Your task to perform on an android device: Search for the most popular books on Goodreads Image 0: 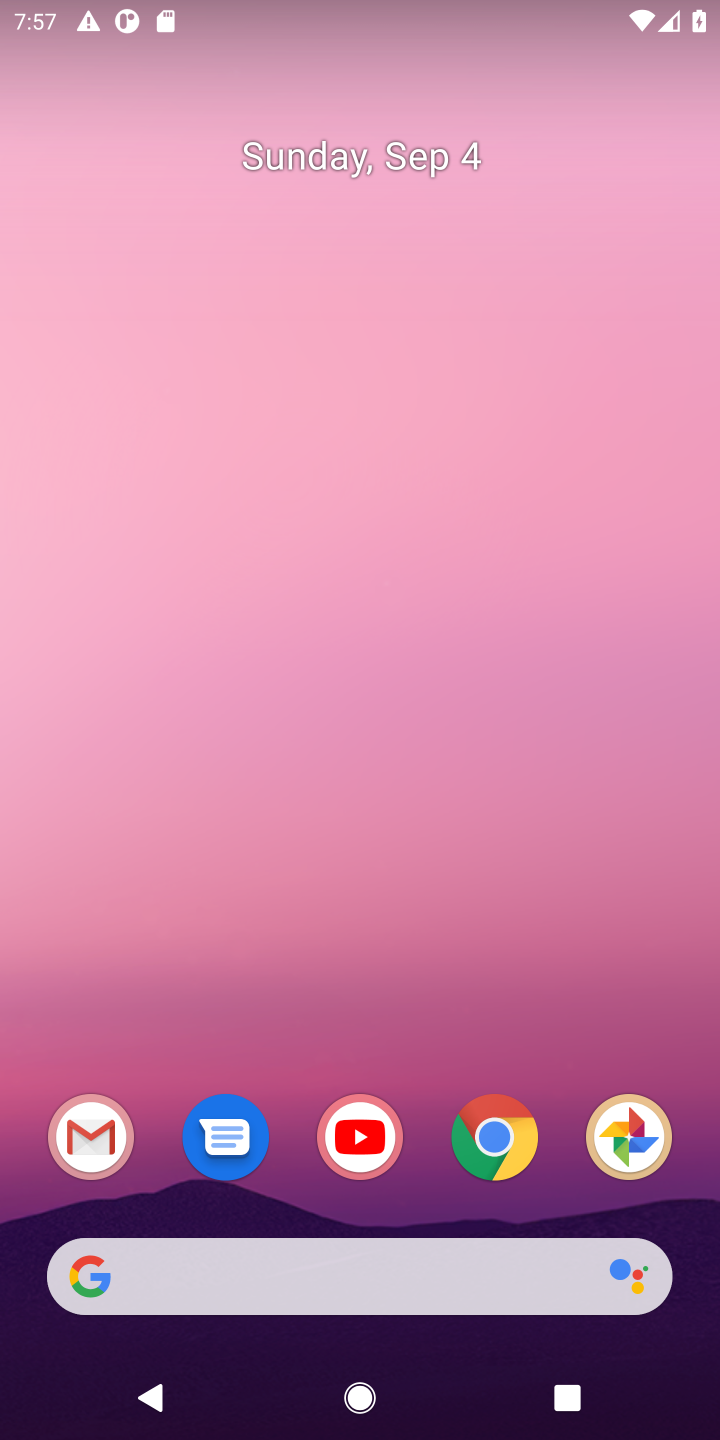
Step 0: click (494, 1132)
Your task to perform on an android device: Search for the most popular books on Goodreads Image 1: 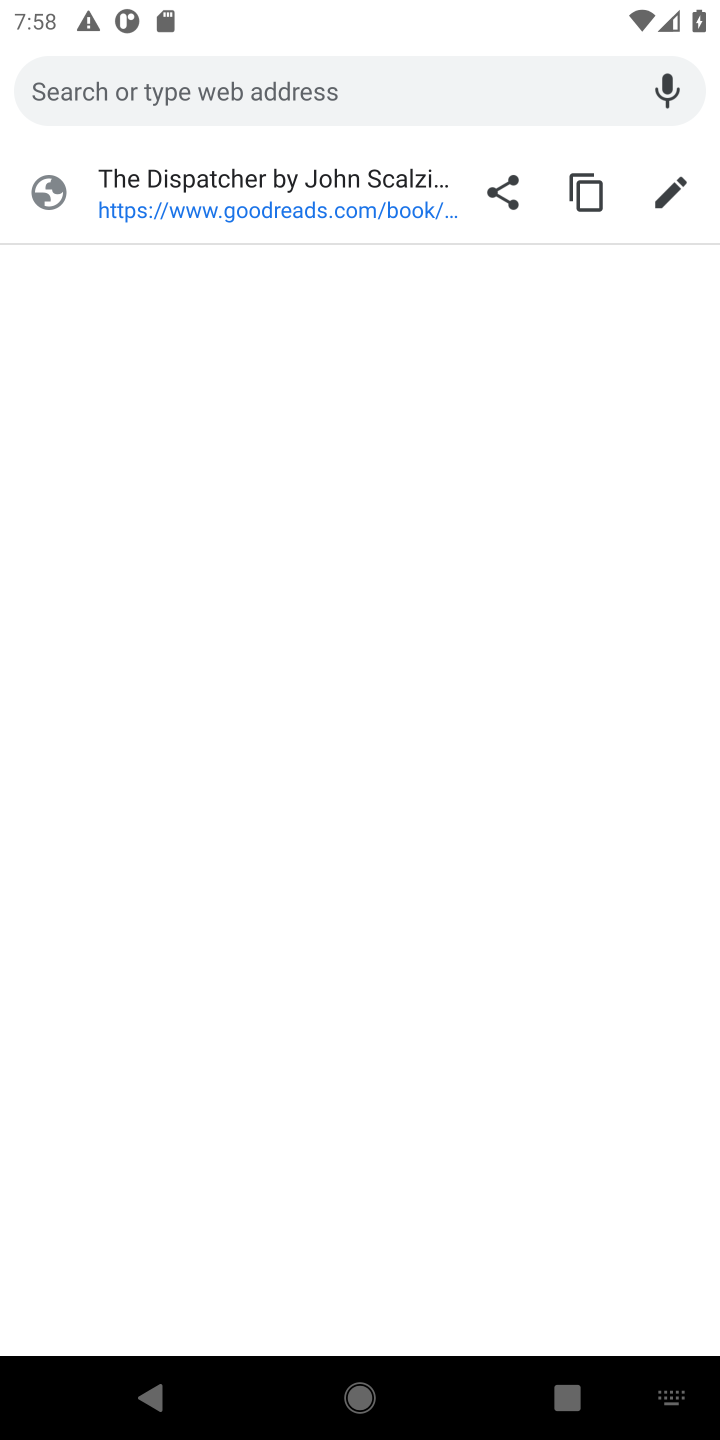
Step 1: type "Goodreads"
Your task to perform on an android device: Search for the most popular books on Goodreads Image 2: 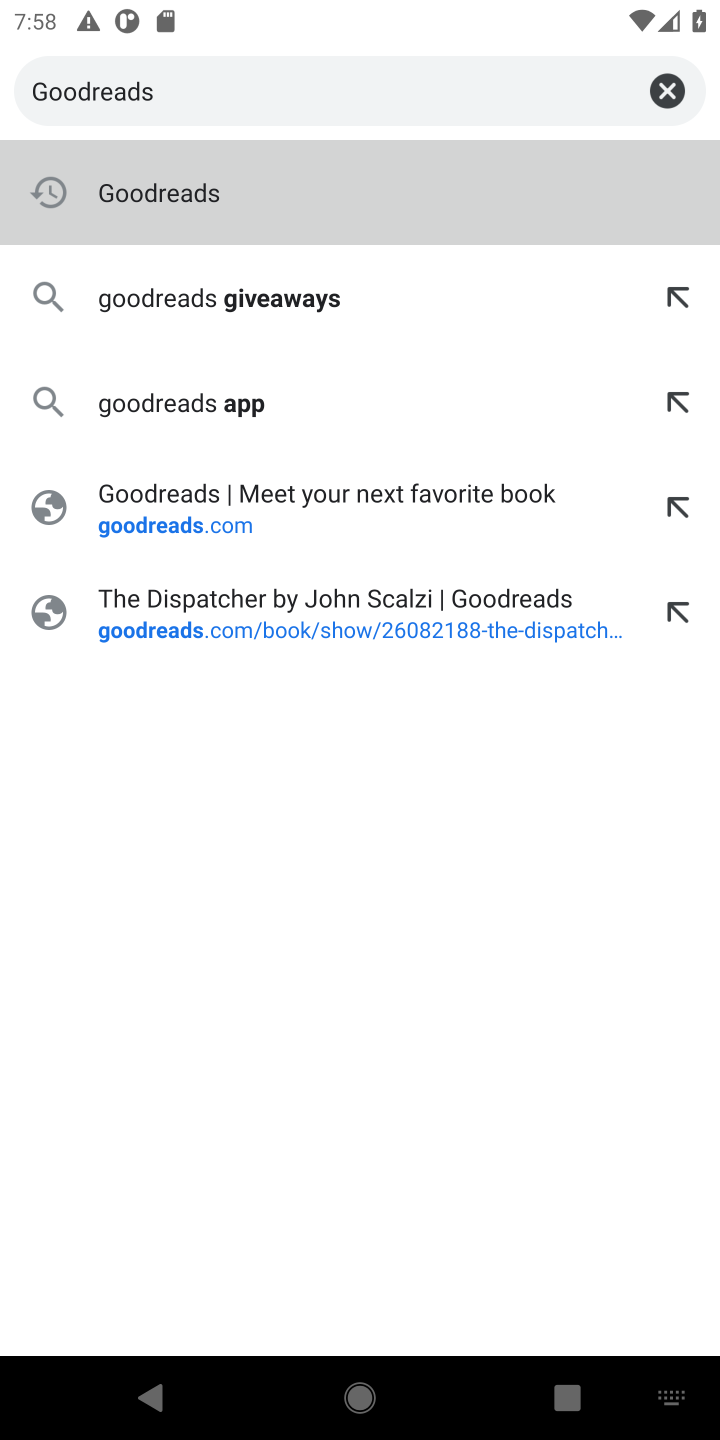
Step 2: click (126, 190)
Your task to perform on an android device: Search for the most popular books on Goodreads Image 3: 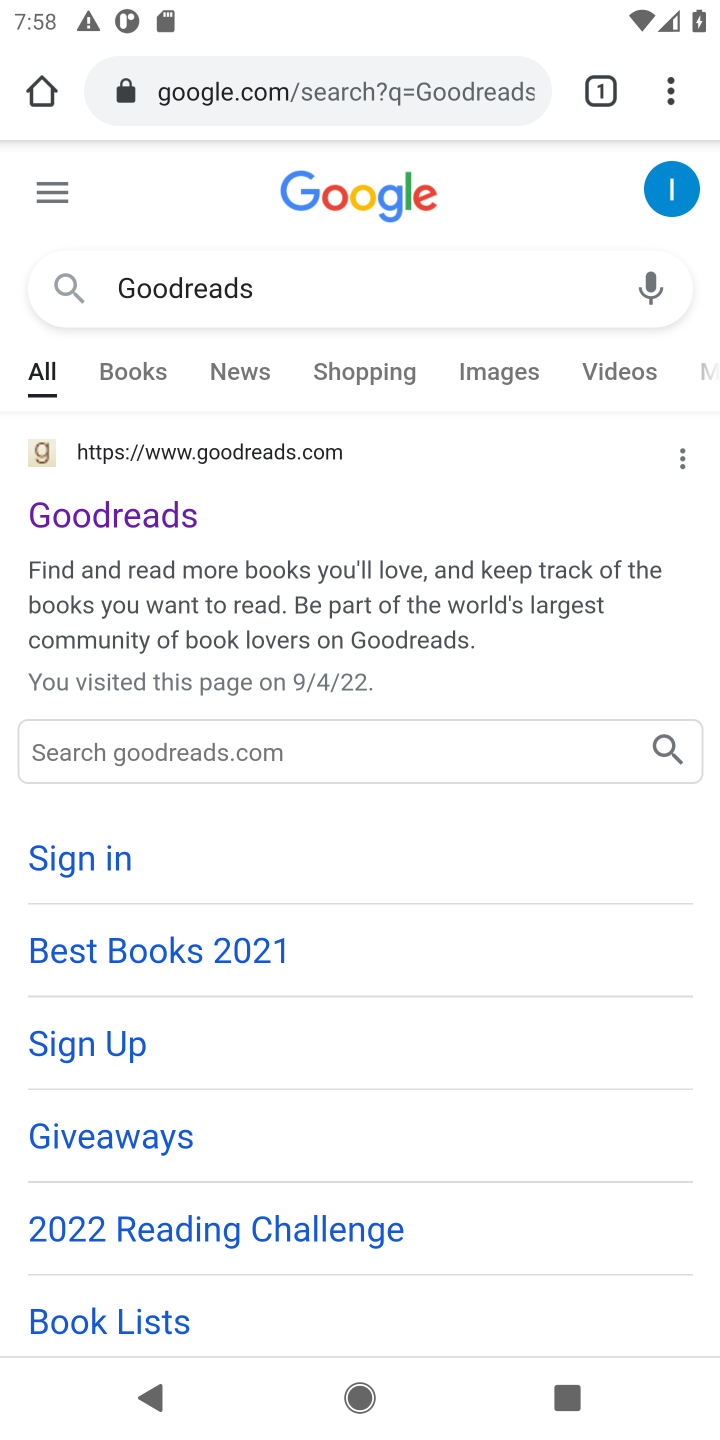
Step 3: click (95, 542)
Your task to perform on an android device: Search for the most popular books on Goodreads Image 4: 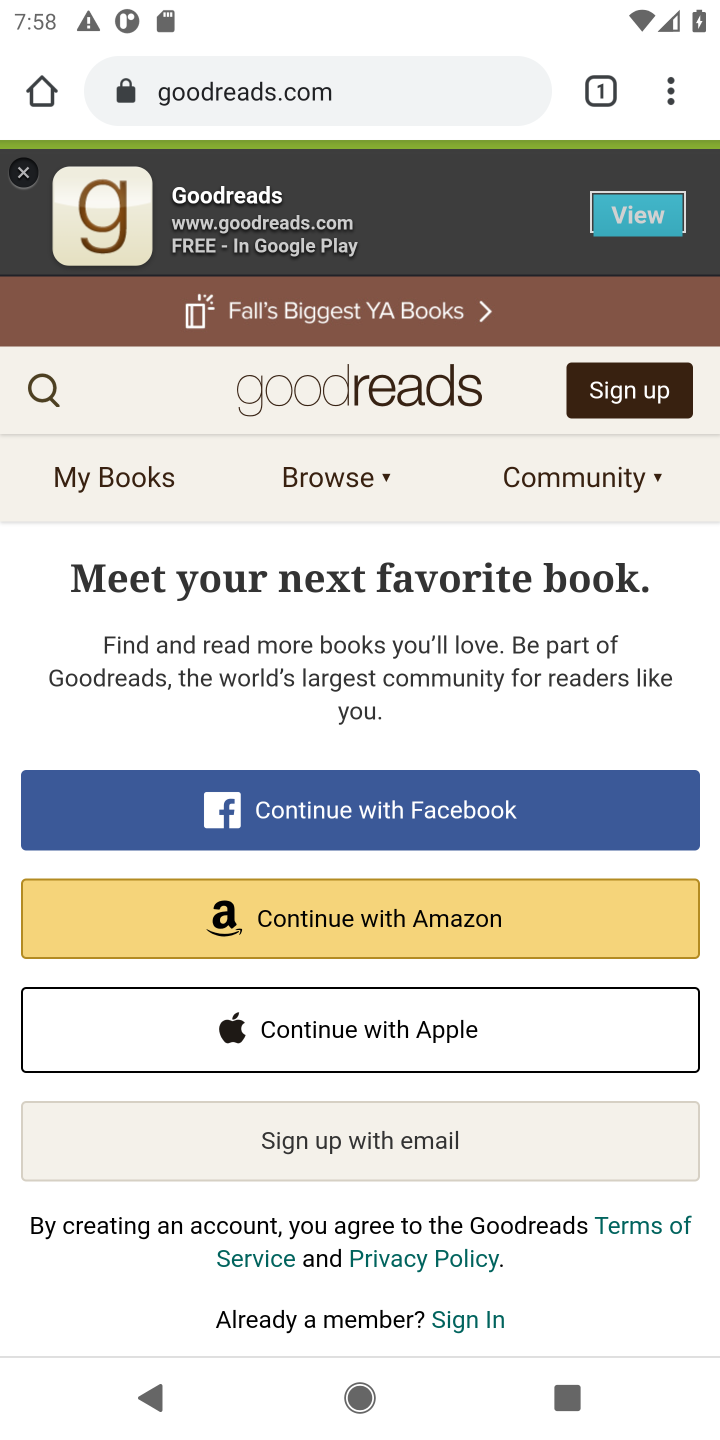
Step 4: click (52, 391)
Your task to perform on an android device: Search for the most popular books on Goodreads Image 5: 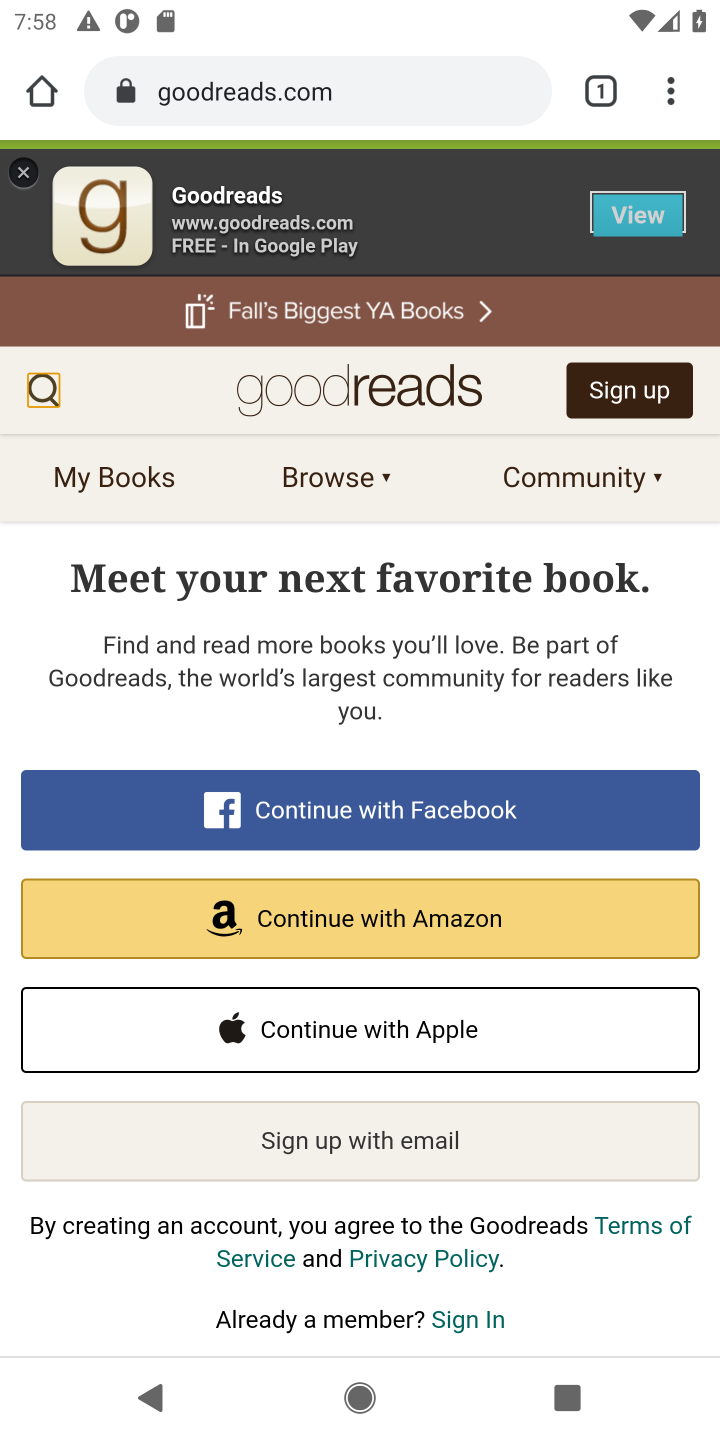
Step 5: click (59, 399)
Your task to perform on an android device: Search for the most popular books on Goodreads Image 6: 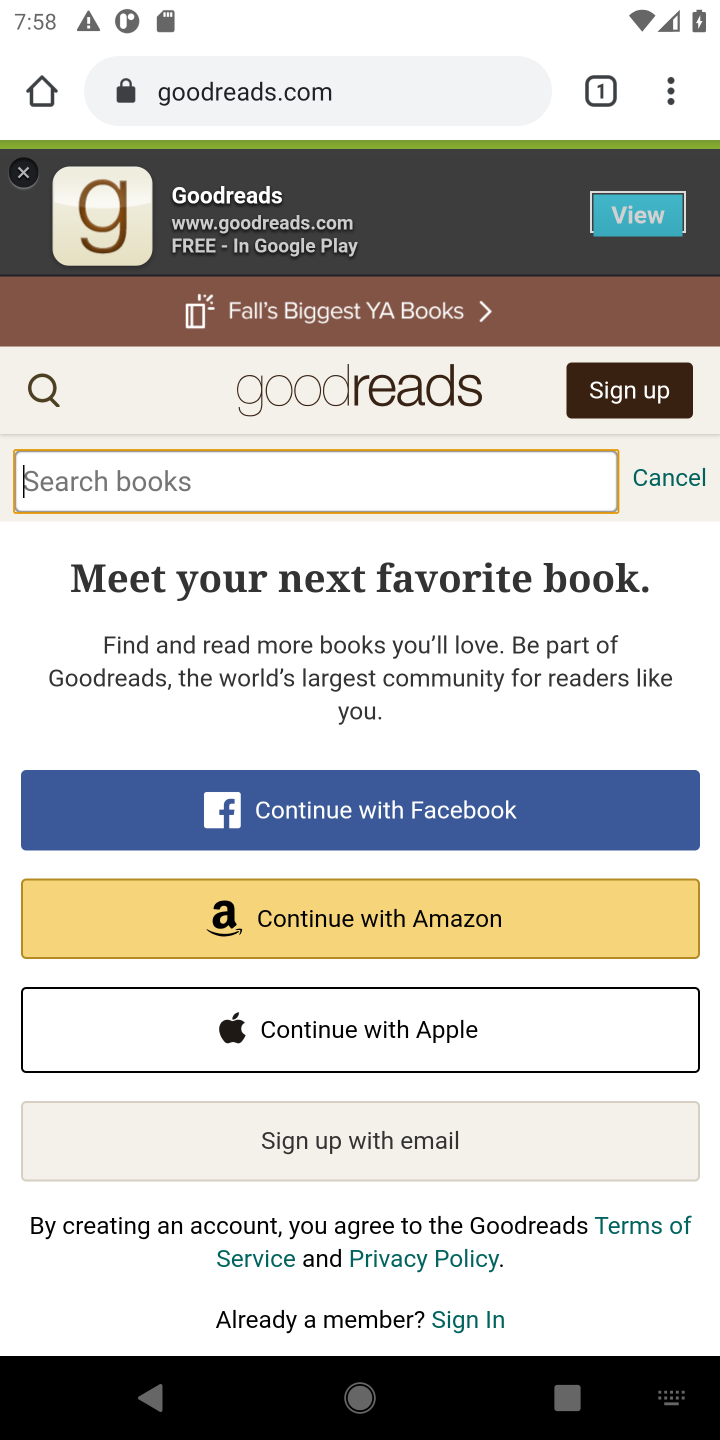
Step 6: click (81, 481)
Your task to perform on an android device: Search for the most popular books on Goodreads Image 7: 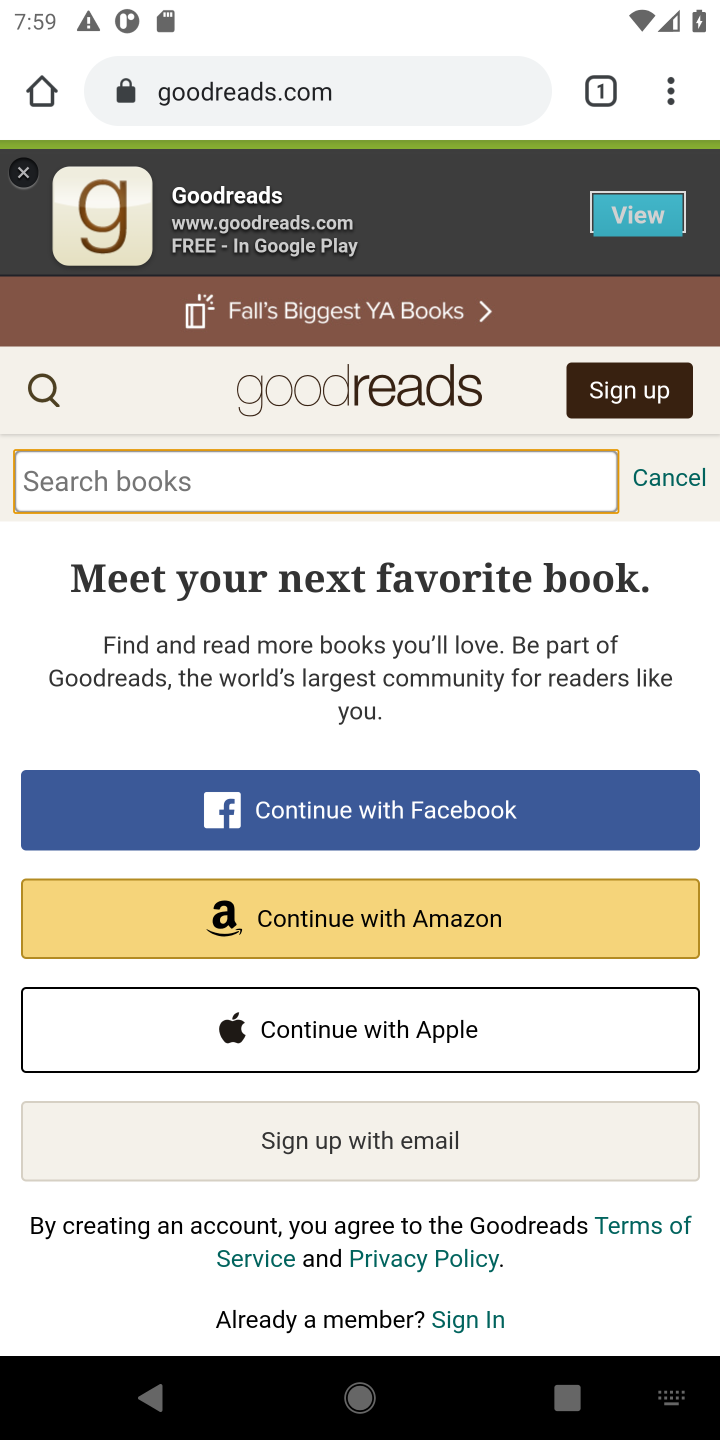
Step 7: type " most popular books"
Your task to perform on an android device: Search for the most popular books on Goodreads Image 8: 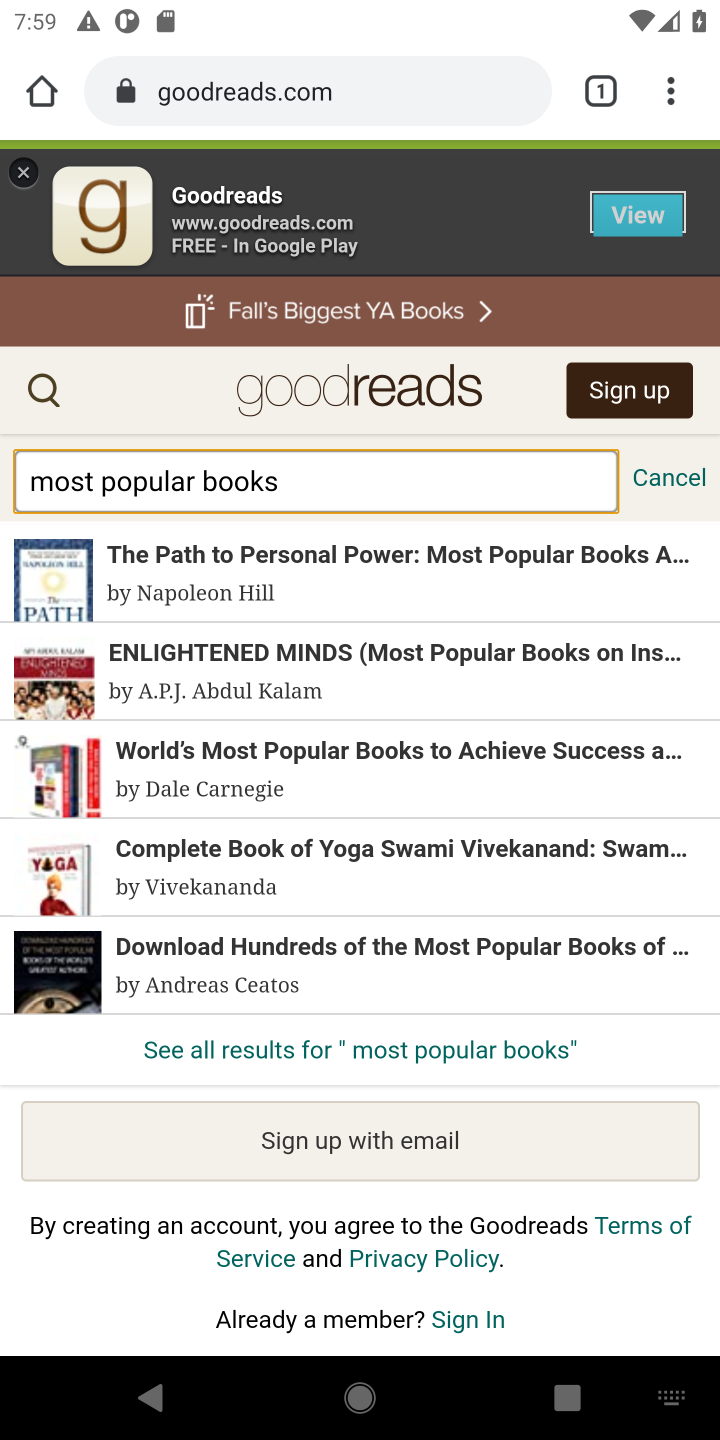
Step 8: click (397, 1046)
Your task to perform on an android device: Search for the most popular books on Goodreads Image 9: 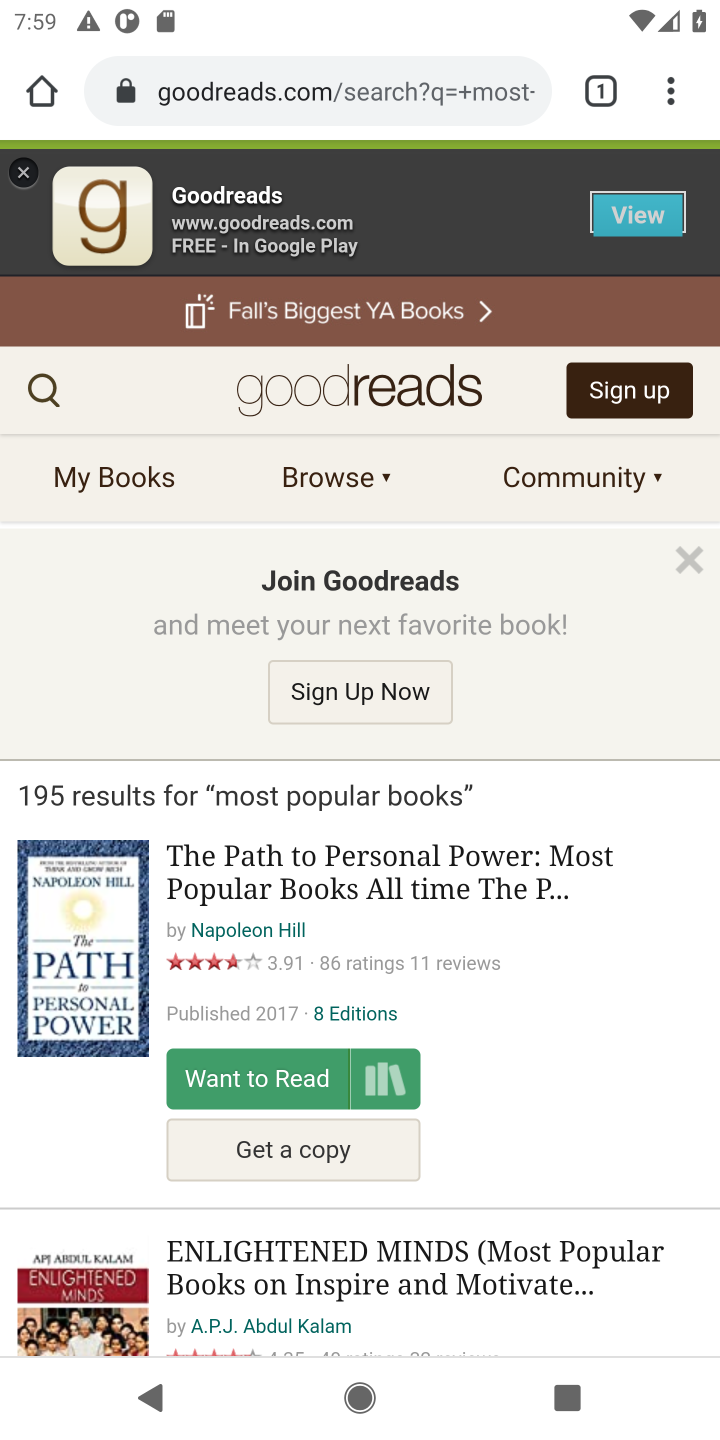
Step 9: task complete